Your task to perform on an android device: open app "Google Find My Device" (install if not already installed) Image 0: 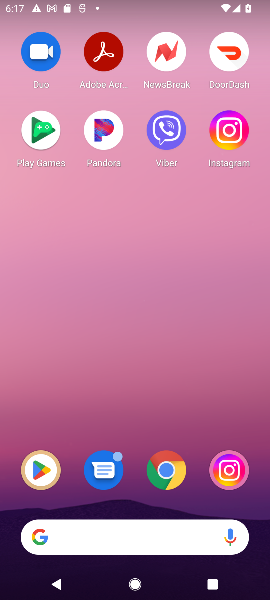
Step 0: drag from (193, 425) to (170, 44)
Your task to perform on an android device: open app "Google Find My Device" (install if not already installed) Image 1: 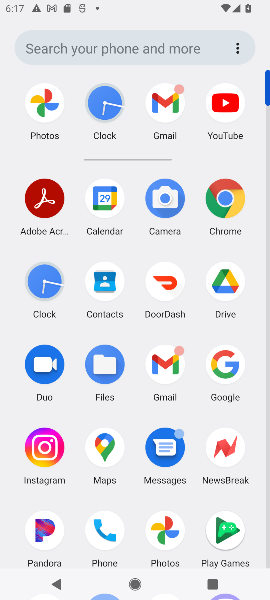
Step 1: drag from (205, 410) to (215, 134)
Your task to perform on an android device: open app "Google Find My Device" (install if not already installed) Image 2: 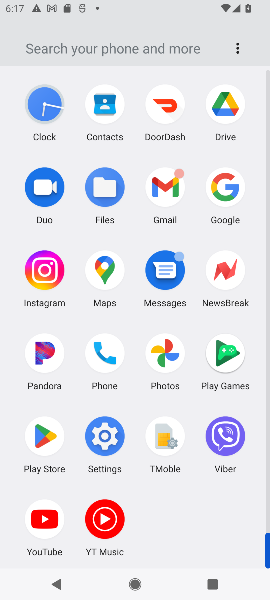
Step 2: click (41, 442)
Your task to perform on an android device: open app "Google Find My Device" (install if not already installed) Image 3: 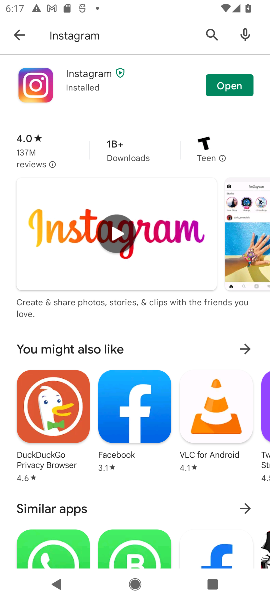
Step 3: click (162, 33)
Your task to perform on an android device: open app "Google Find My Device" (install if not already installed) Image 4: 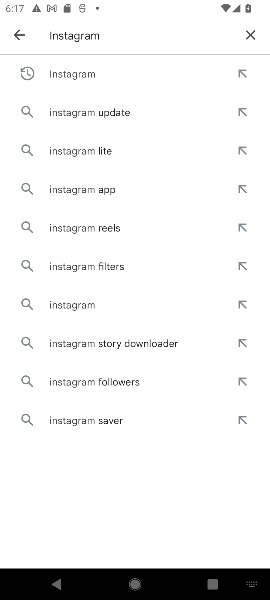
Step 4: click (251, 34)
Your task to perform on an android device: open app "Google Find My Device" (install if not already installed) Image 5: 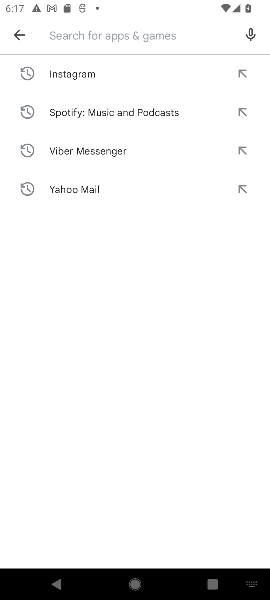
Step 5: type "Google Find My Device"
Your task to perform on an android device: open app "Google Find My Device" (install if not already installed) Image 6: 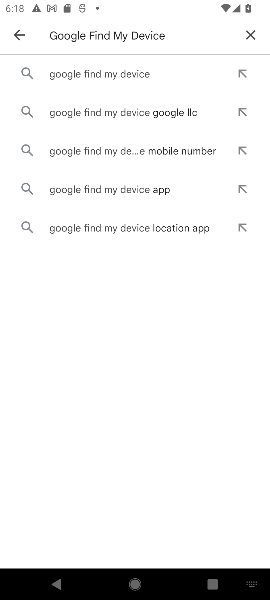
Step 6: press enter
Your task to perform on an android device: open app "Google Find My Device" (install if not already installed) Image 7: 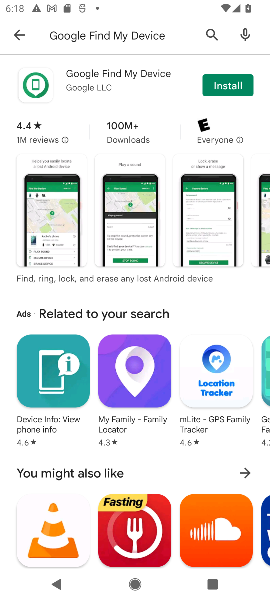
Step 7: click (240, 88)
Your task to perform on an android device: open app "Google Find My Device" (install if not already installed) Image 8: 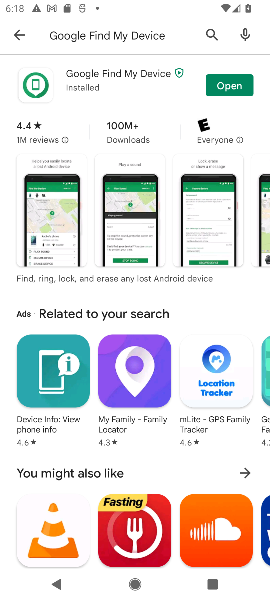
Step 8: click (233, 78)
Your task to perform on an android device: open app "Google Find My Device" (install if not already installed) Image 9: 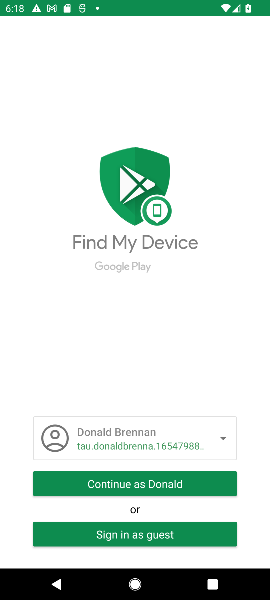
Step 9: task complete